Your task to perform on an android device: Search for sushi restaurants on Maps Image 0: 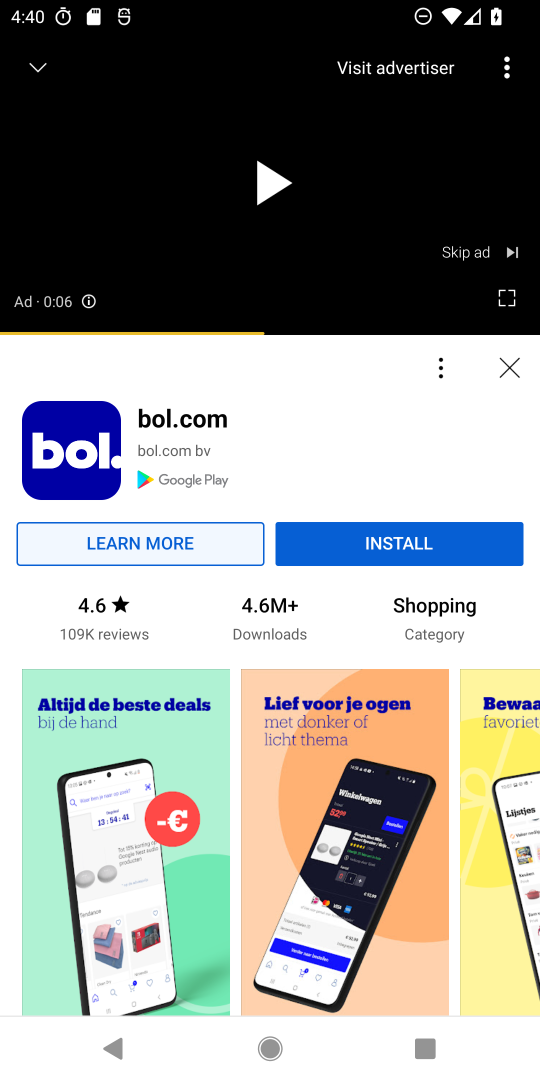
Step 0: press home button
Your task to perform on an android device: Search for sushi restaurants on Maps Image 1: 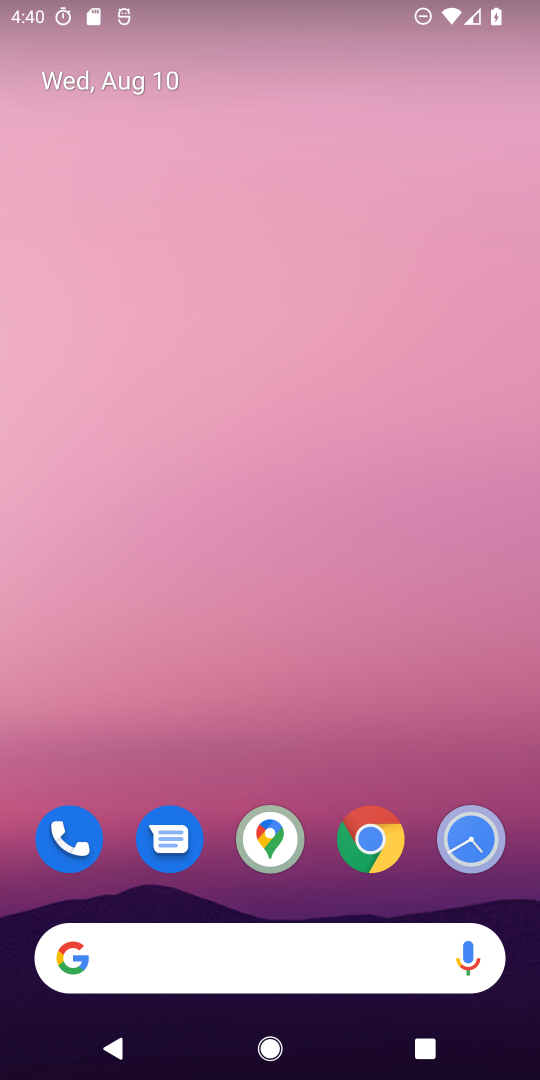
Step 1: click (247, 840)
Your task to perform on an android device: Search for sushi restaurants on Maps Image 2: 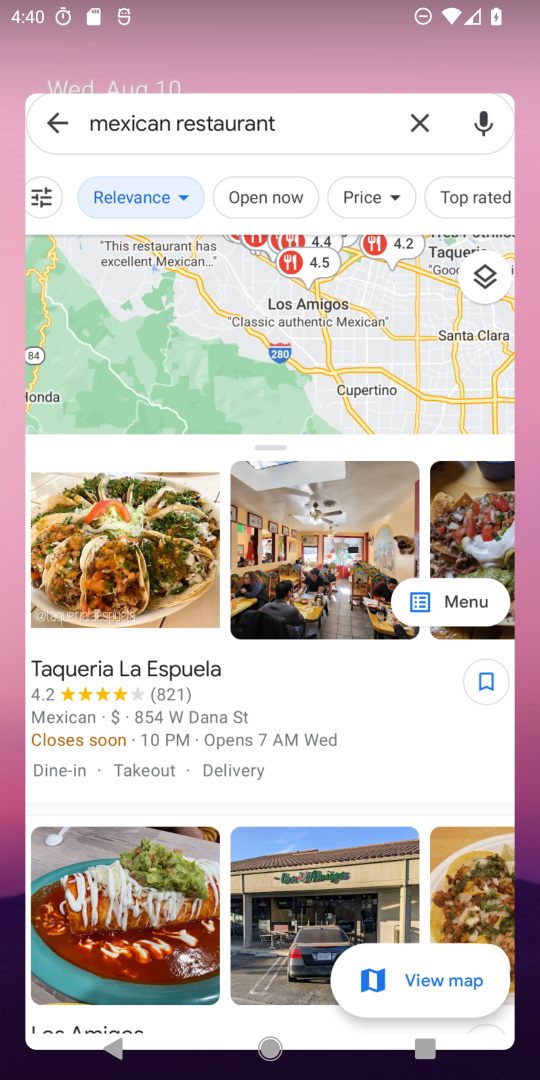
Step 2: click (257, 836)
Your task to perform on an android device: Search for sushi restaurants on Maps Image 3: 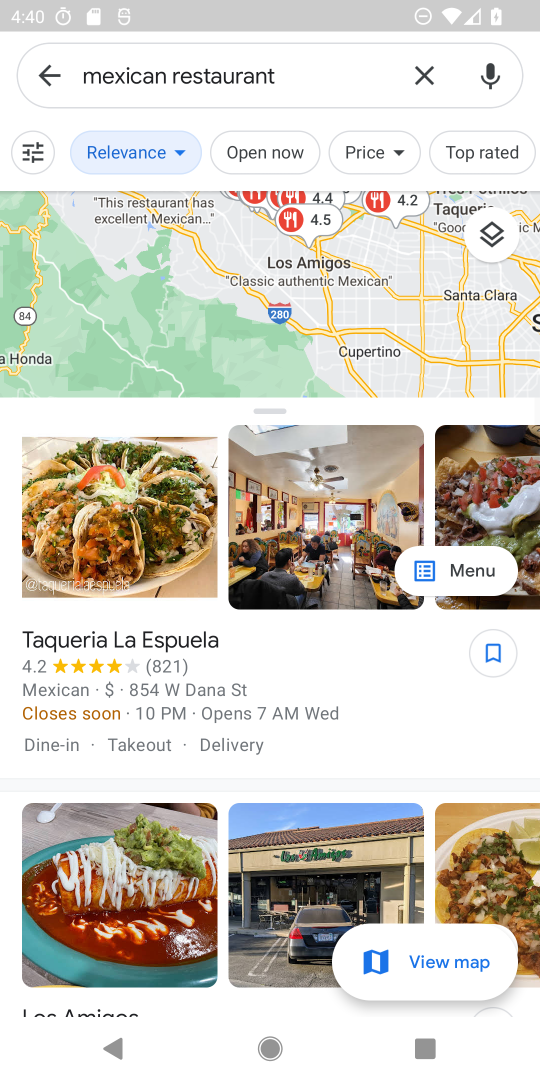
Step 3: click (48, 77)
Your task to perform on an android device: Search for sushi restaurants on Maps Image 4: 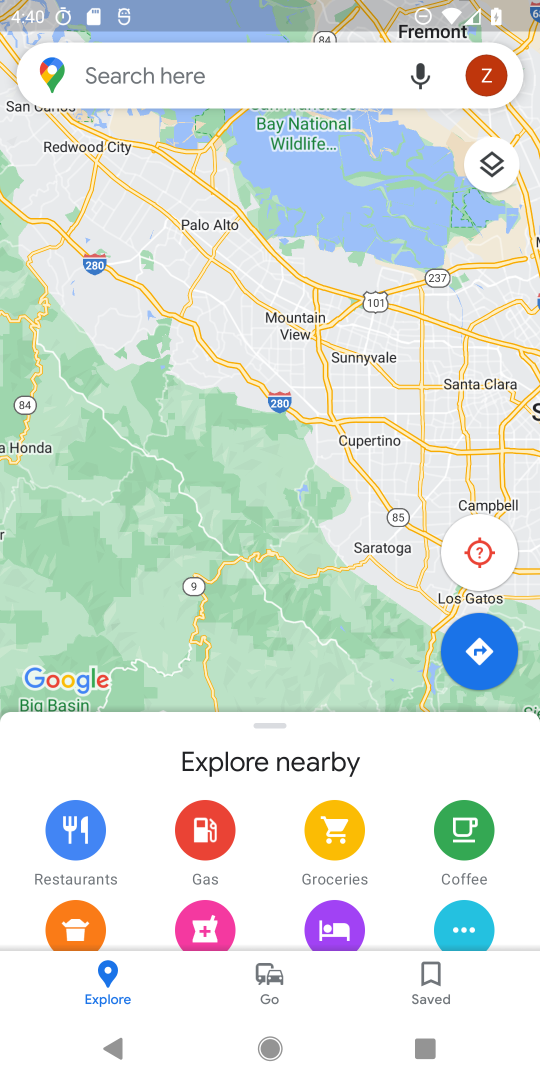
Step 4: click (158, 70)
Your task to perform on an android device: Search for sushi restaurants on Maps Image 5: 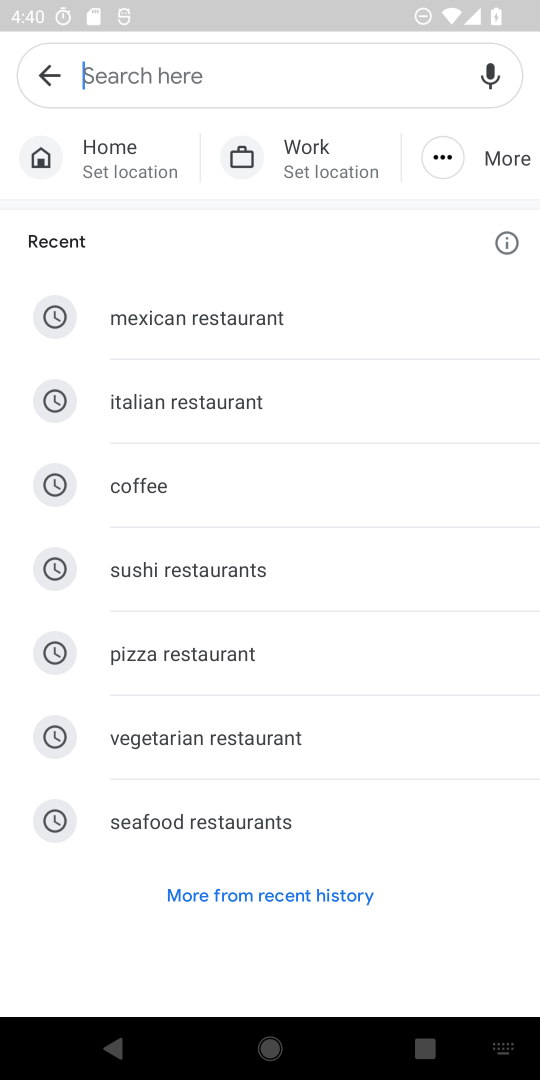
Step 5: click (180, 575)
Your task to perform on an android device: Search for sushi restaurants on Maps Image 6: 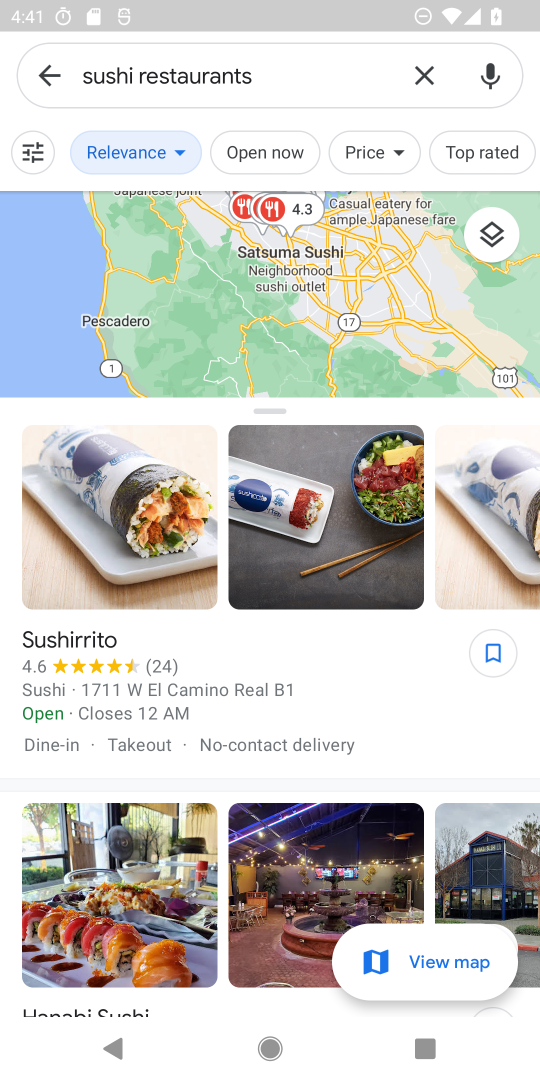
Step 6: task complete